Your task to perform on an android device: install app "Clock" Image 0: 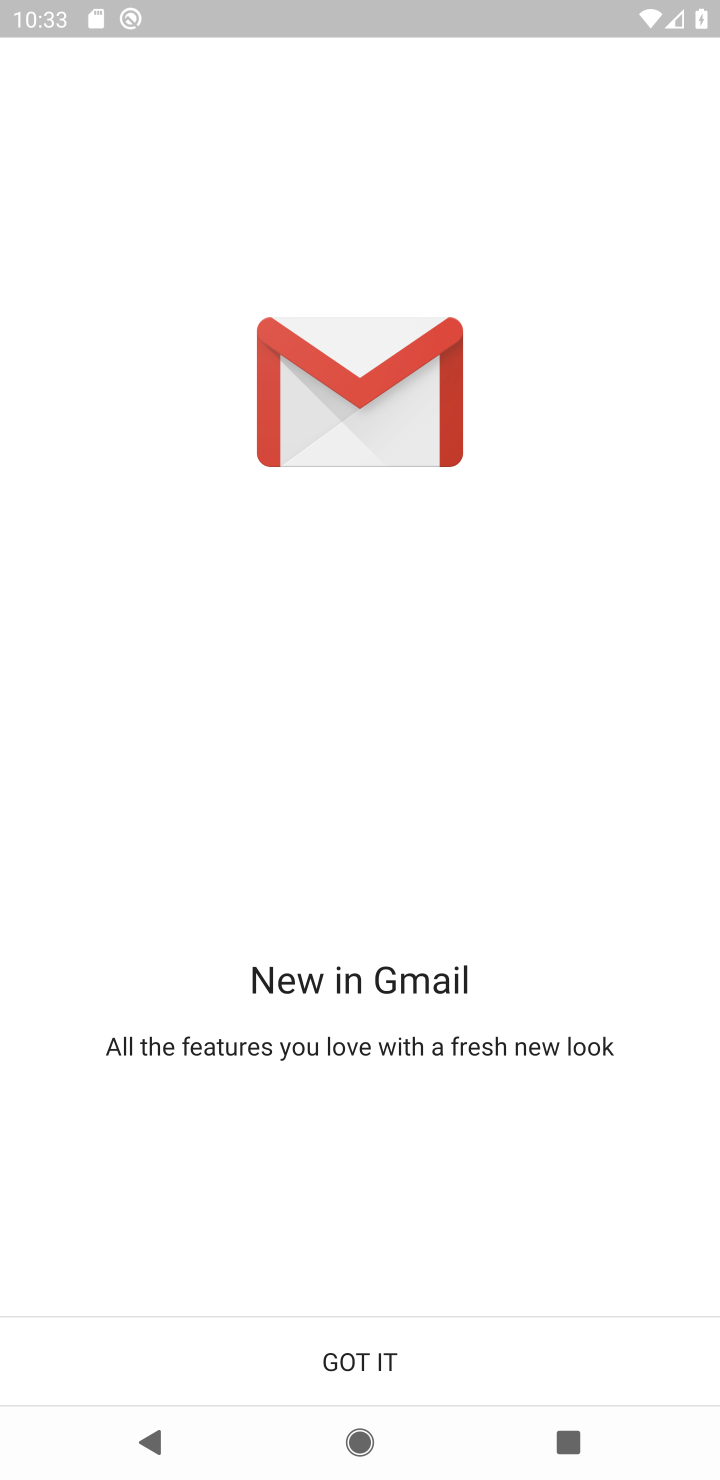
Step 0: press home button
Your task to perform on an android device: install app "Clock" Image 1: 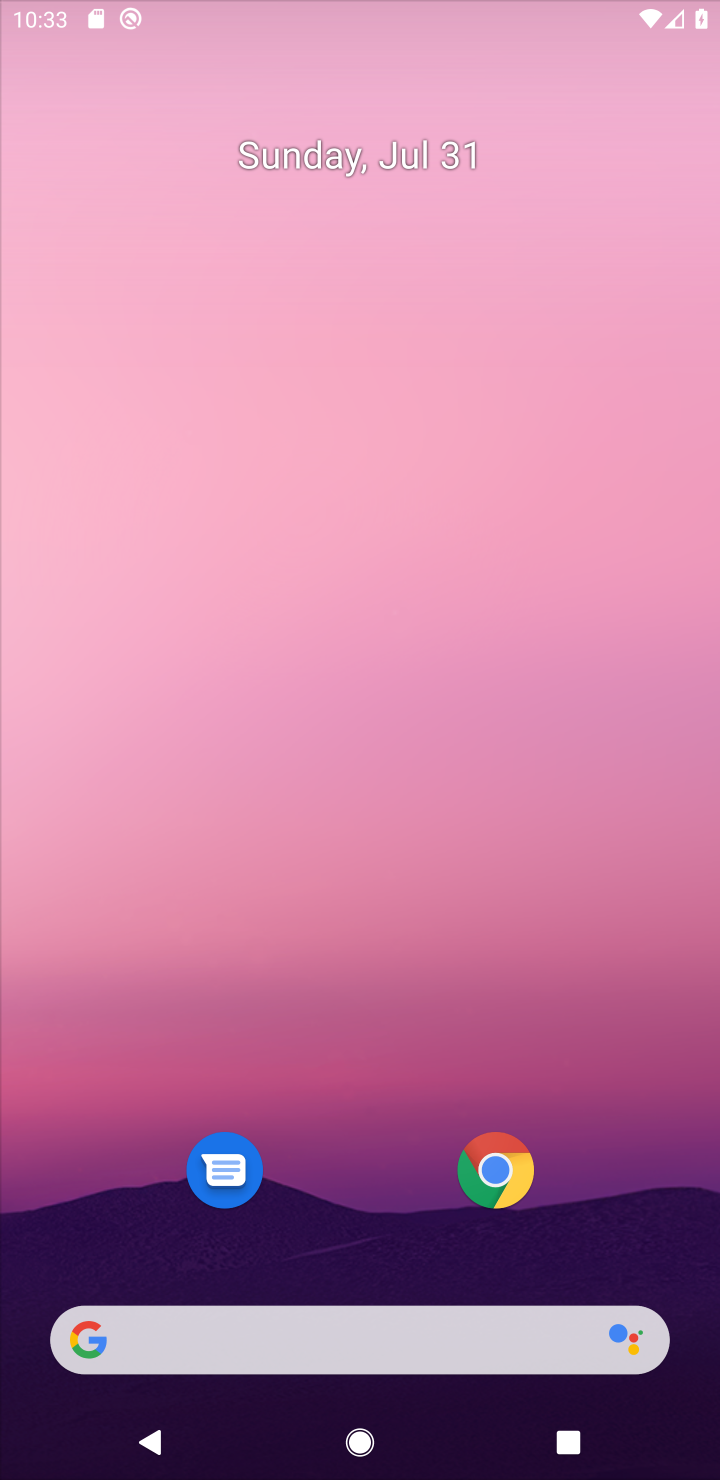
Step 1: drag from (673, 1274) to (177, 19)
Your task to perform on an android device: install app "Clock" Image 2: 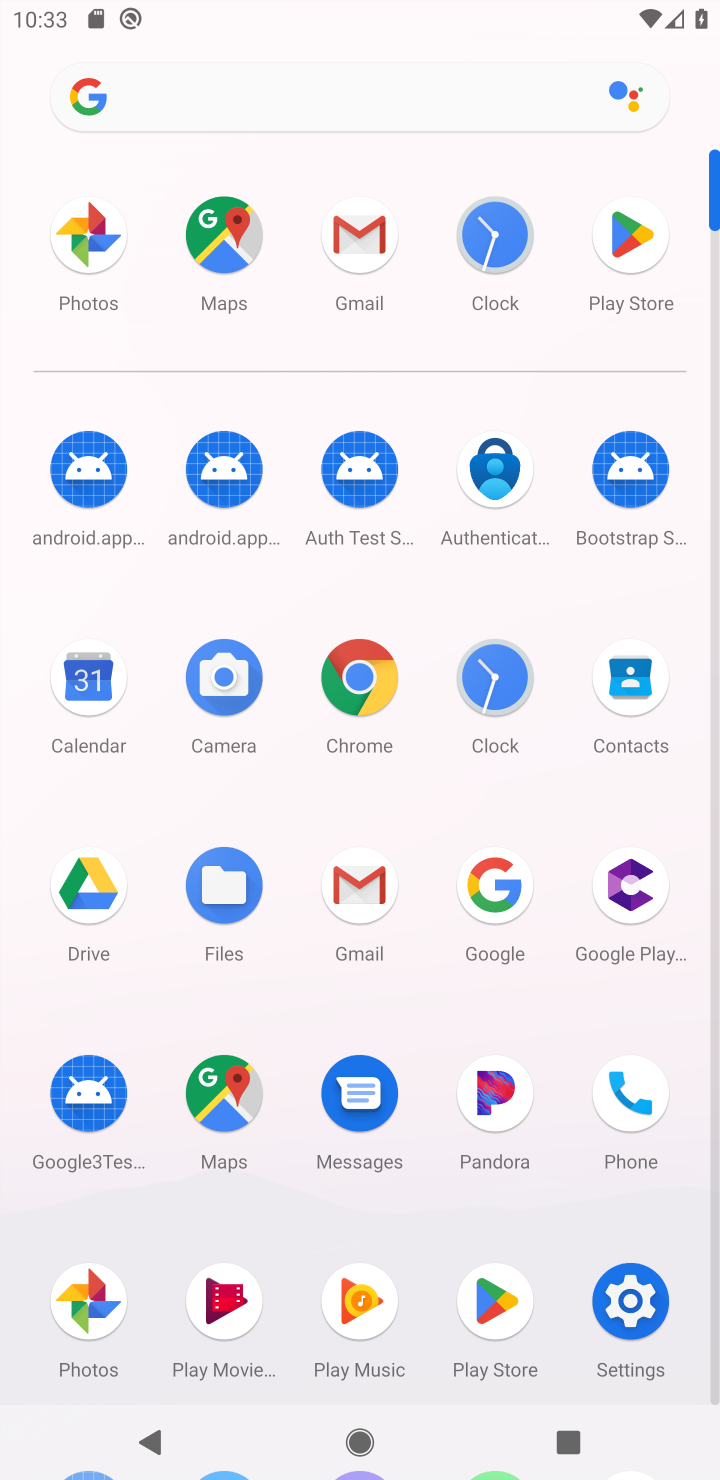
Step 2: click (505, 1290)
Your task to perform on an android device: install app "Clock" Image 3: 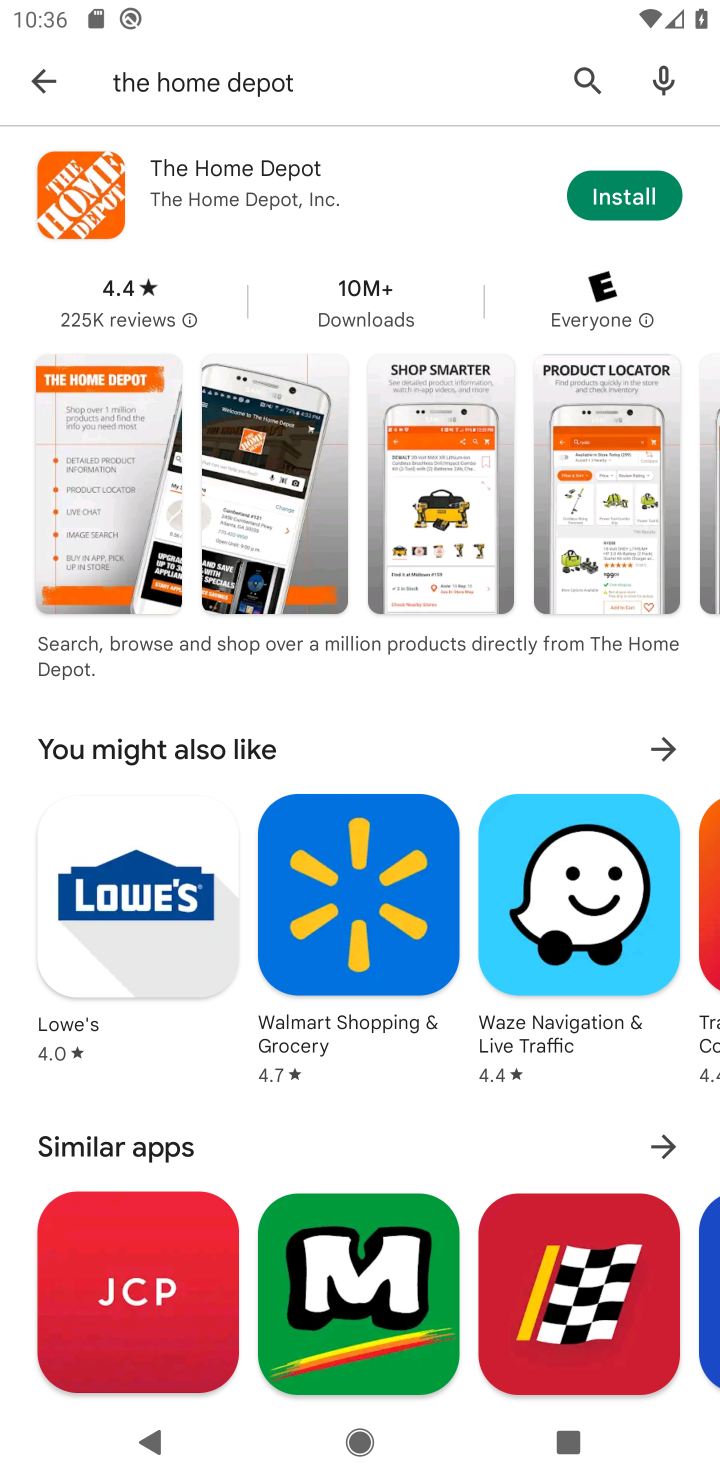
Step 3: press back button
Your task to perform on an android device: install app "Clock" Image 4: 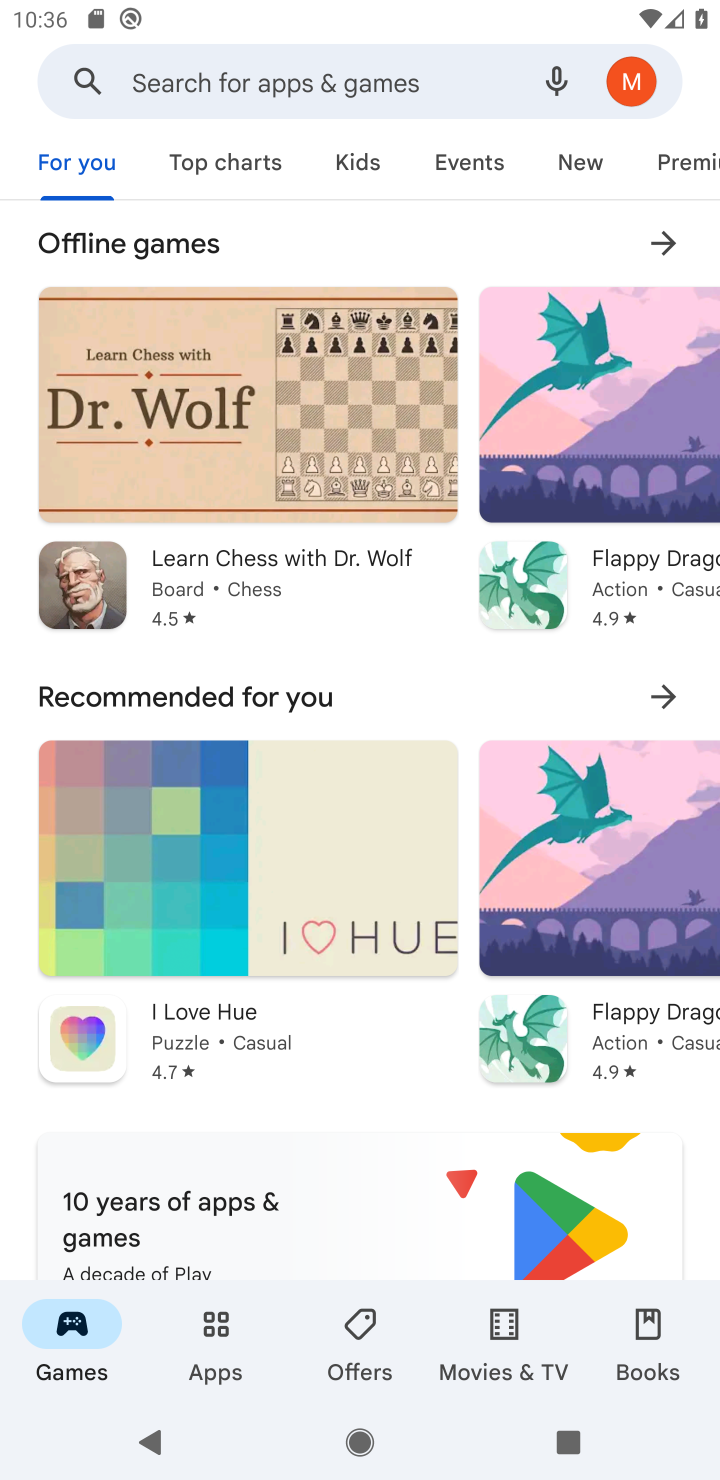
Step 4: click (174, 91)
Your task to perform on an android device: install app "Clock" Image 5: 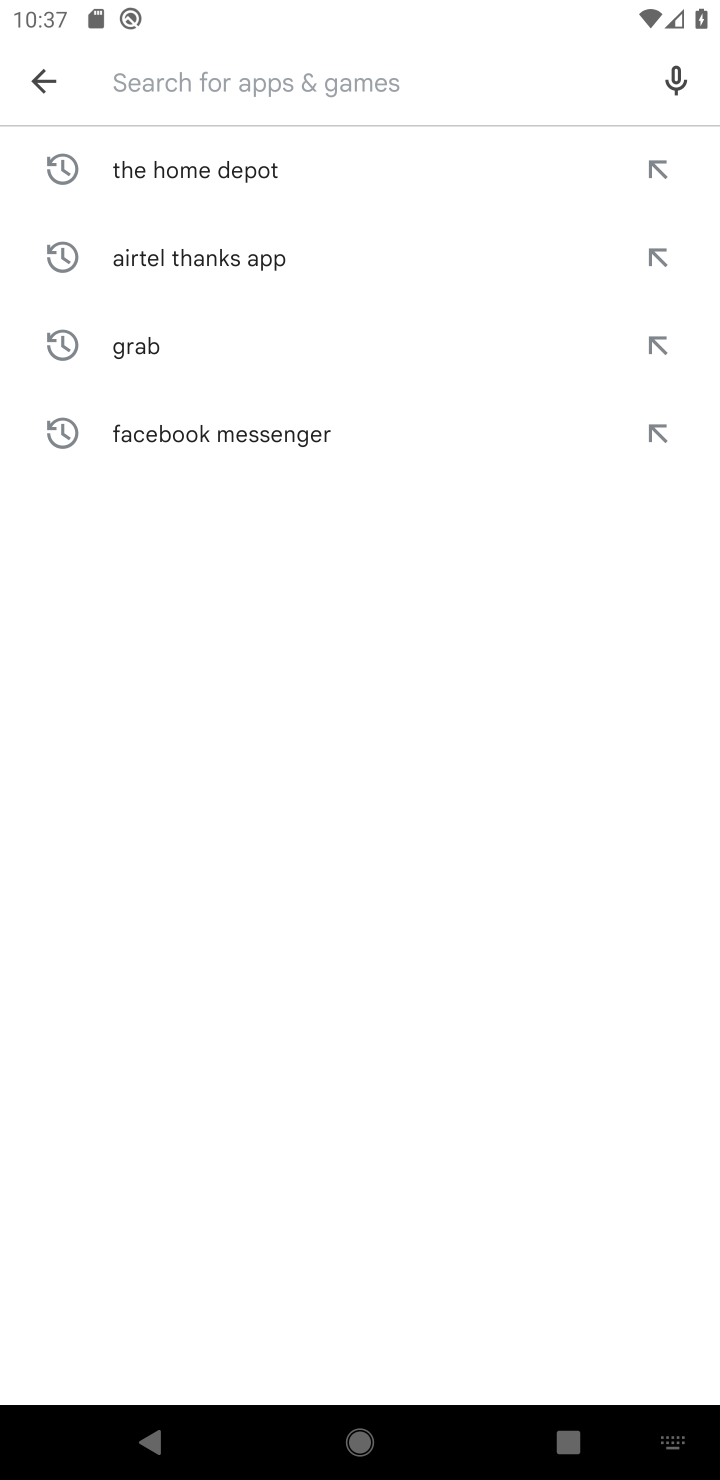
Step 5: type "Clock"
Your task to perform on an android device: install app "Clock" Image 6: 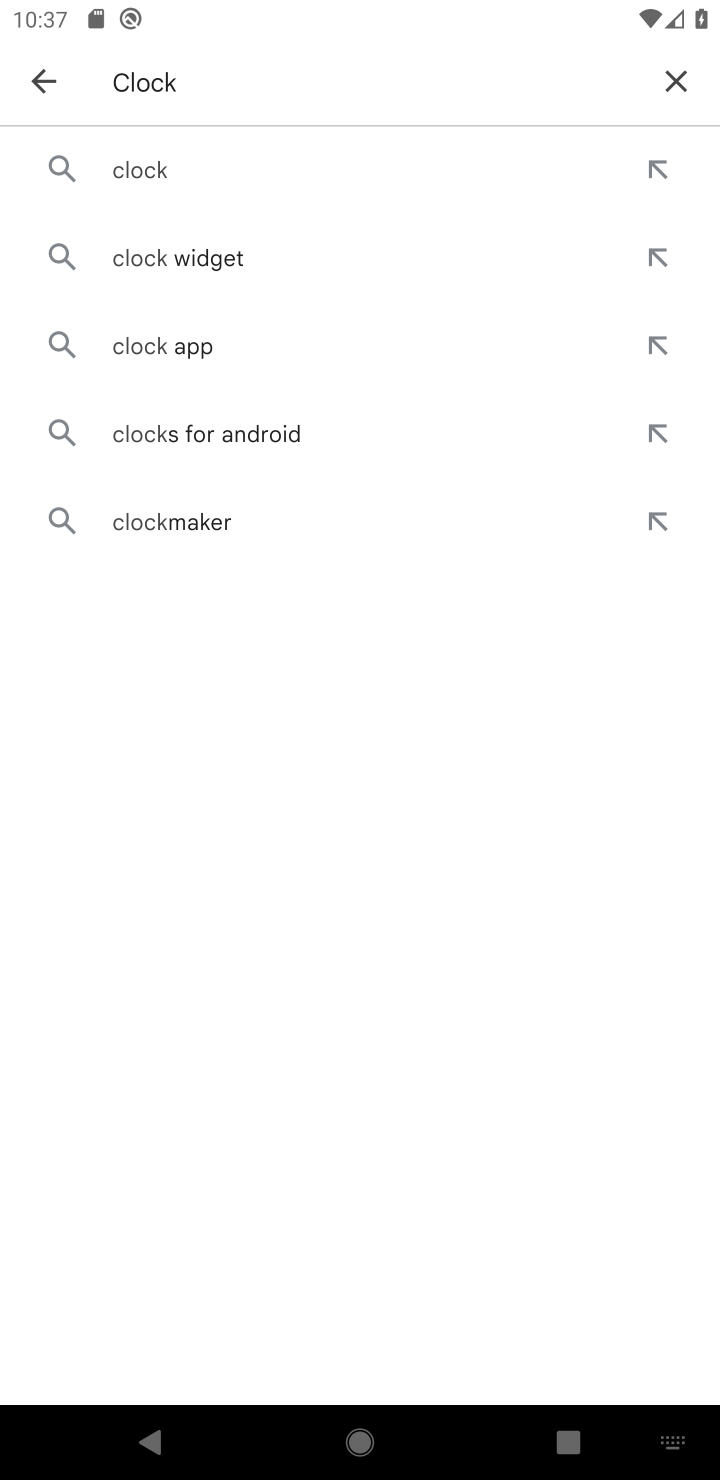
Step 6: click (276, 157)
Your task to perform on an android device: install app "Clock" Image 7: 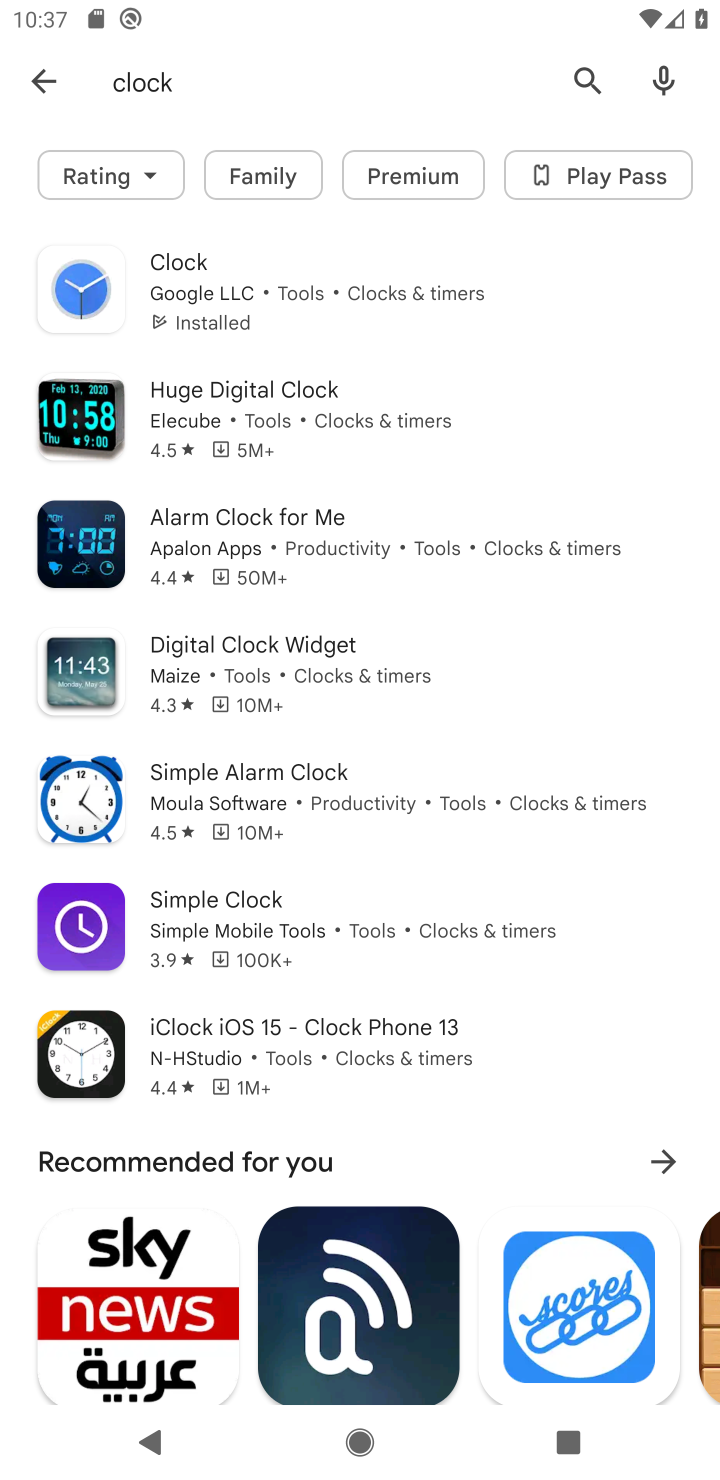
Step 7: click (261, 311)
Your task to perform on an android device: install app "Clock" Image 8: 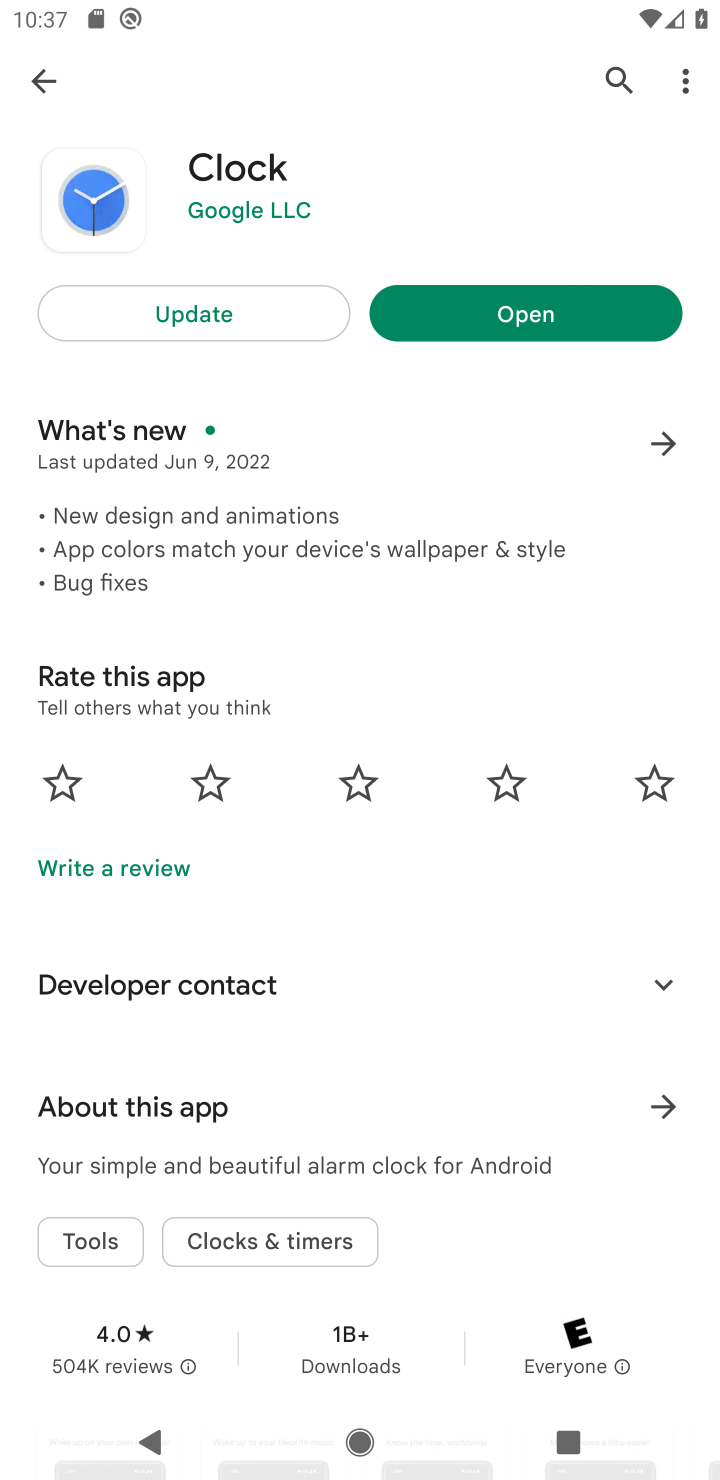
Step 8: task complete